Your task to perform on an android device: check the backup settings in the google photos Image 0: 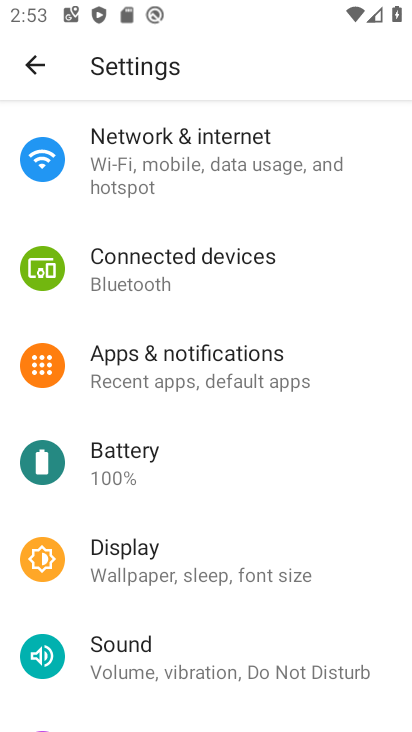
Step 0: press home button
Your task to perform on an android device: check the backup settings in the google photos Image 1: 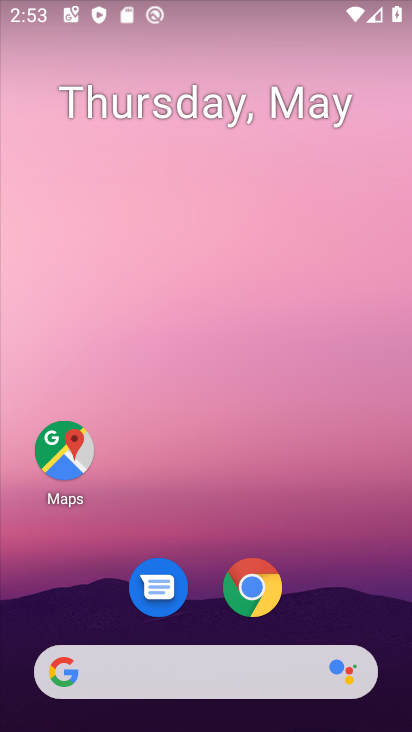
Step 1: drag from (331, 627) to (258, 30)
Your task to perform on an android device: check the backup settings in the google photos Image 2: 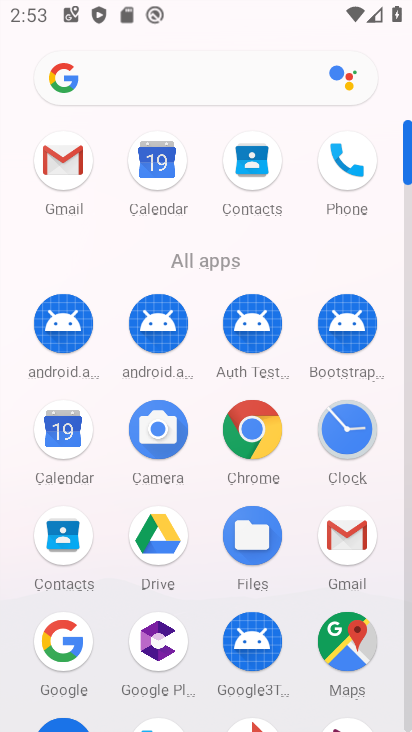
Step 2: drag from (291, 538) to (281, 341)
Your task to perform on an android device: check the backup settings in the google photos Image 3: 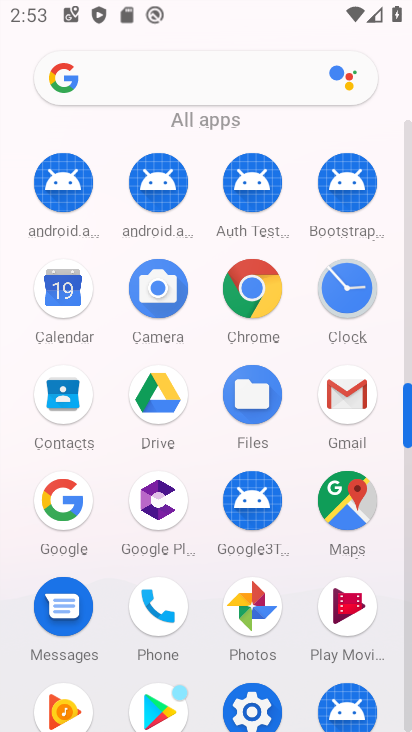
Step 3: click (260, 611)
Your task to perform on an android device: check the backup settings in the google photos Image 4: 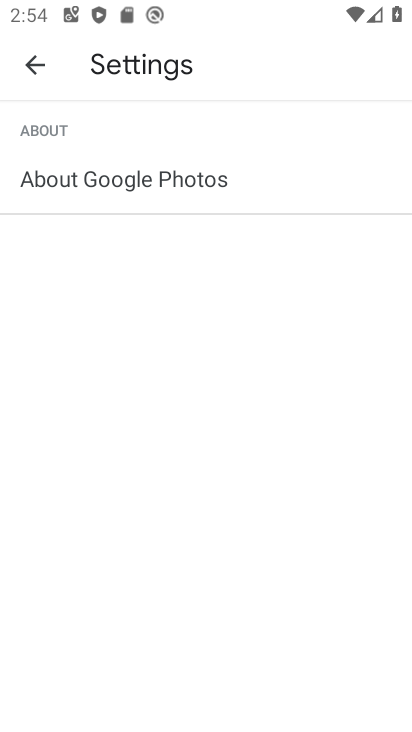
Step 4: click (44, 64)
Your task to perform on an android device: check the backup settings in the google photos Image 5: 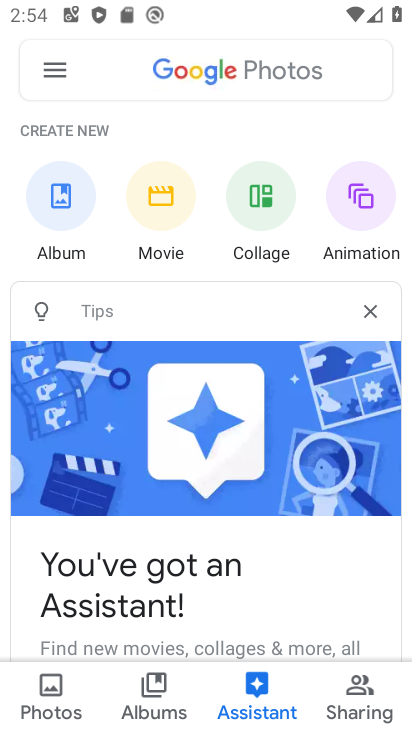
Step 5: click (45, 61)
Your task to perform on an android device: check the backup settings in the google photos Image 6: 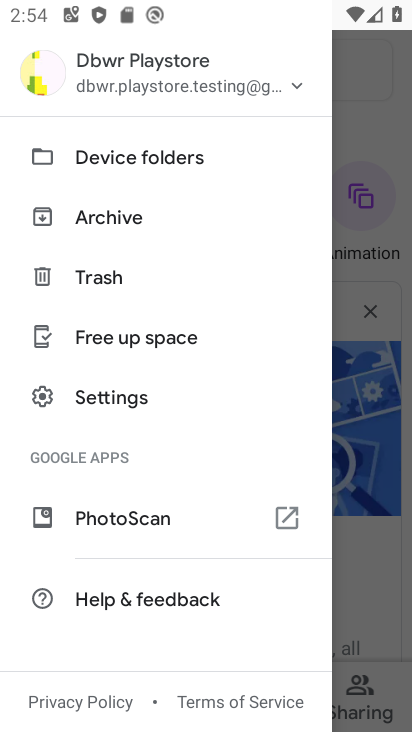
Step 6: drag from (139, 565) to (114, 311)
Your task to perform on an android device: check the backup settings in the google photos Image 7: 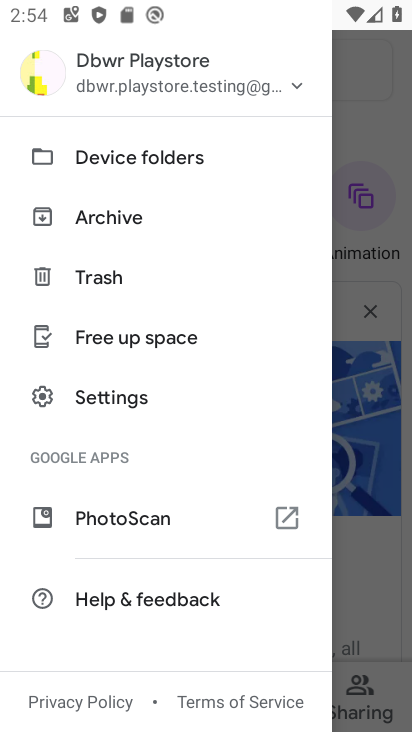
Step 7: click (118, 398)
Your task to perform on an android device: check the backup settings in the google photos Image 8: 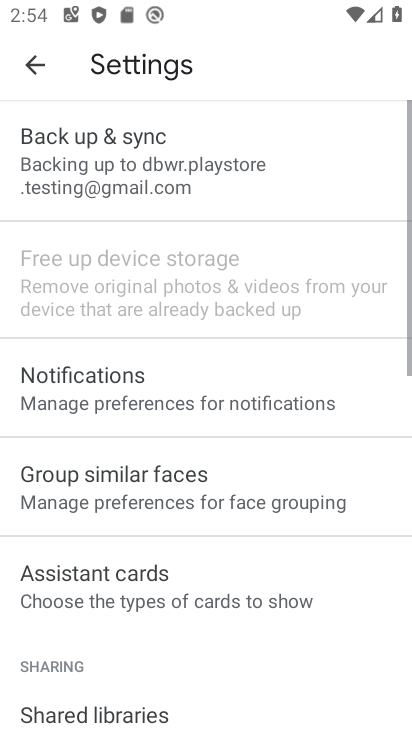
Step 8: click (131, 156)
Your task to perform on an android device: check the backup settings in the google photos Image 9: 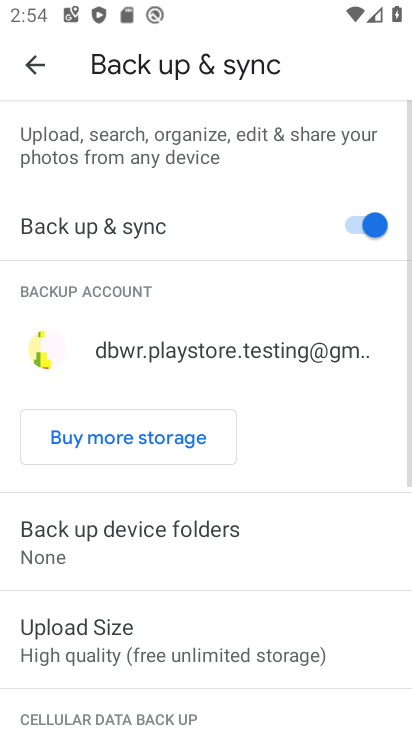
Step 9: task complete